Your task to perform on an android device: Open the map Image 0: 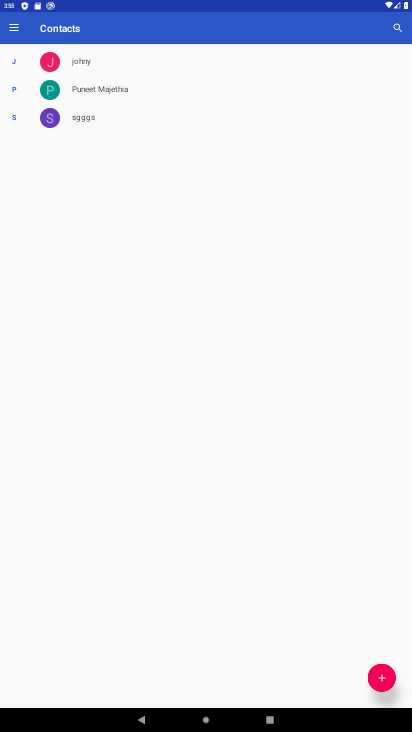
Step 0: press home button
Your task to perform on an android device: Open the map Image 1: 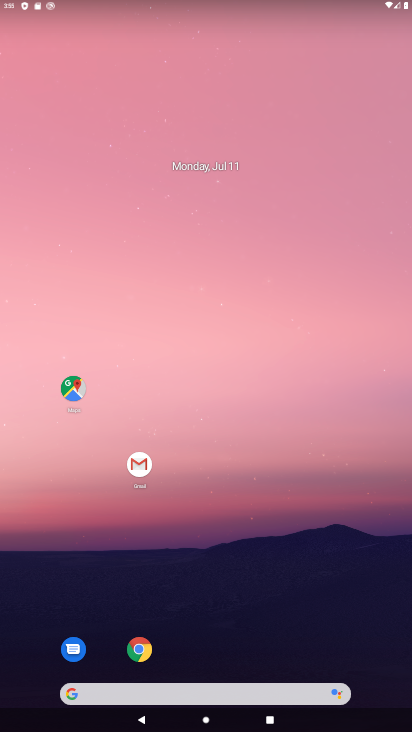
Step 1: click (81, 391)
Your task to perform on an android device: Open the map Image 2: 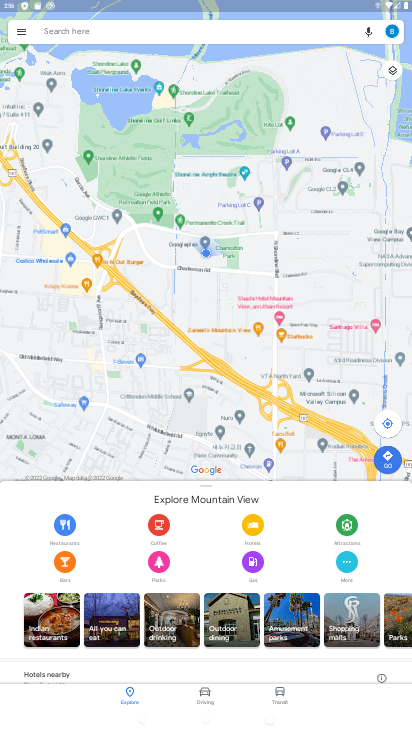
Step 2: task complete